Your task to perform on an android device: Open location settings Image 0: 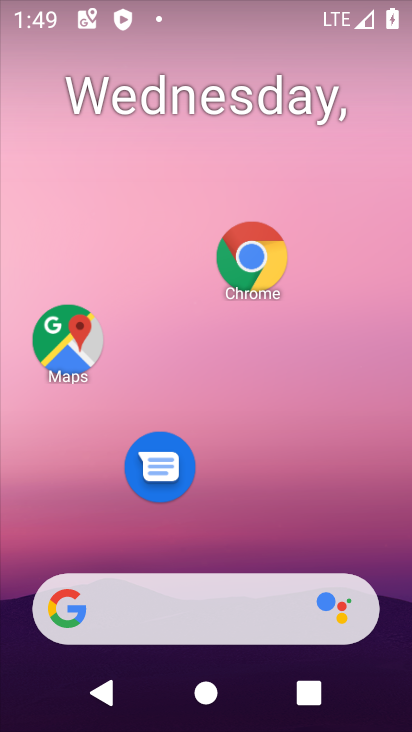
Step 0: drag from (275, 516) to (283, 47)
Your task to perform on an android device: Open location settings Image 1: 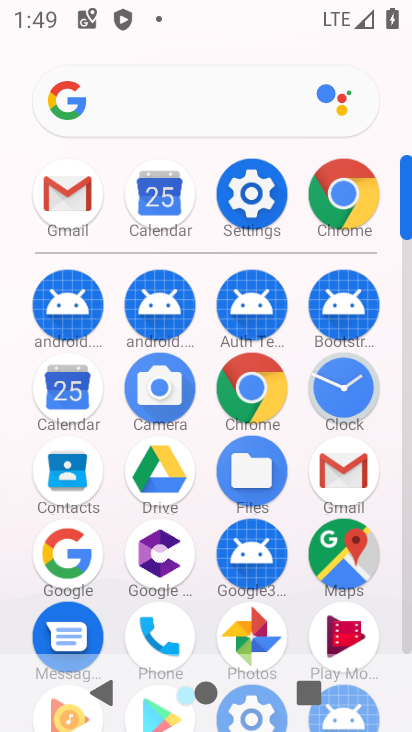
Step 1: click (230, 197)
Your task to perform on an android device: Open location settings Image 2: 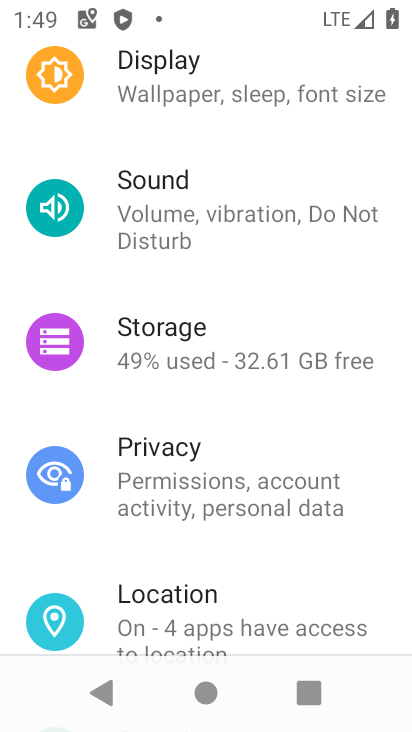
Step 2: click (167, 626)
Your task to perform on an android device: Open location settings Image 3: 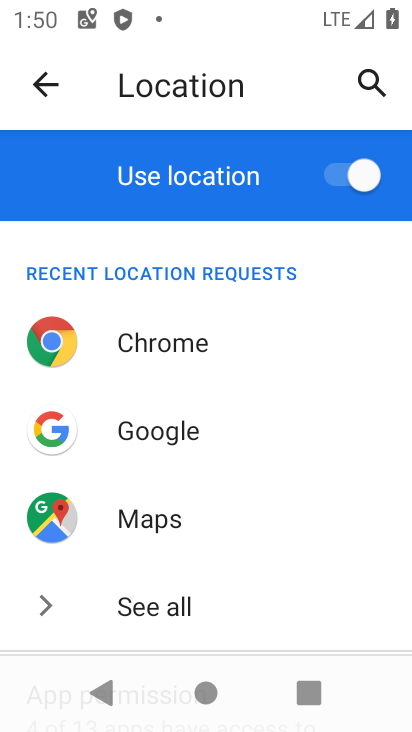
Step 3: task complete